Your task to perform on an android device: see creations saved in the google photos Image 0: 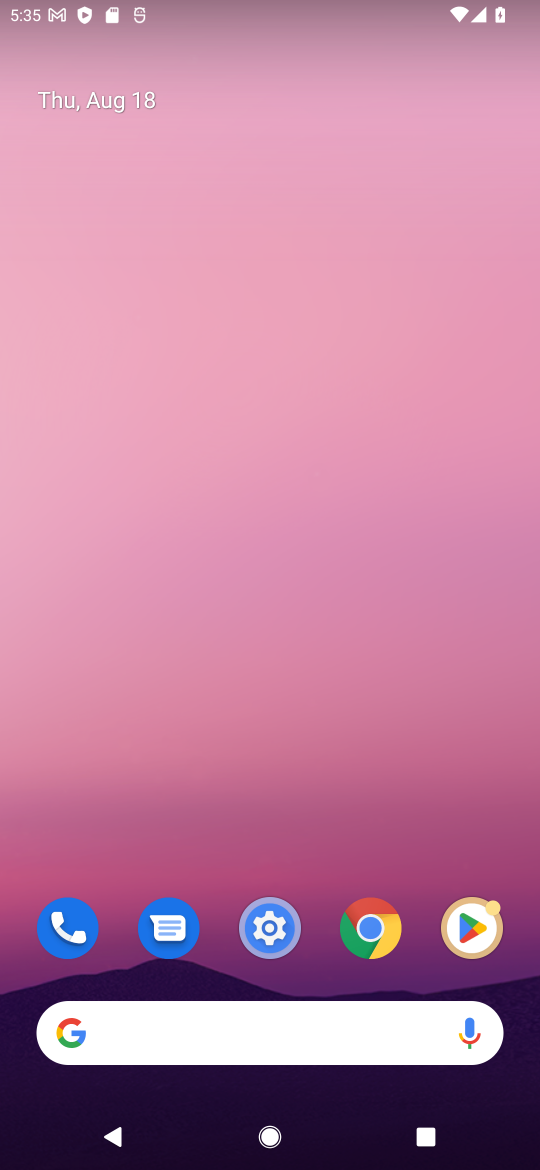
Step 0: drag from (270, 753) to (368, 36)
Your task to perform on an android device: see creations saved in the google photos Image 1: 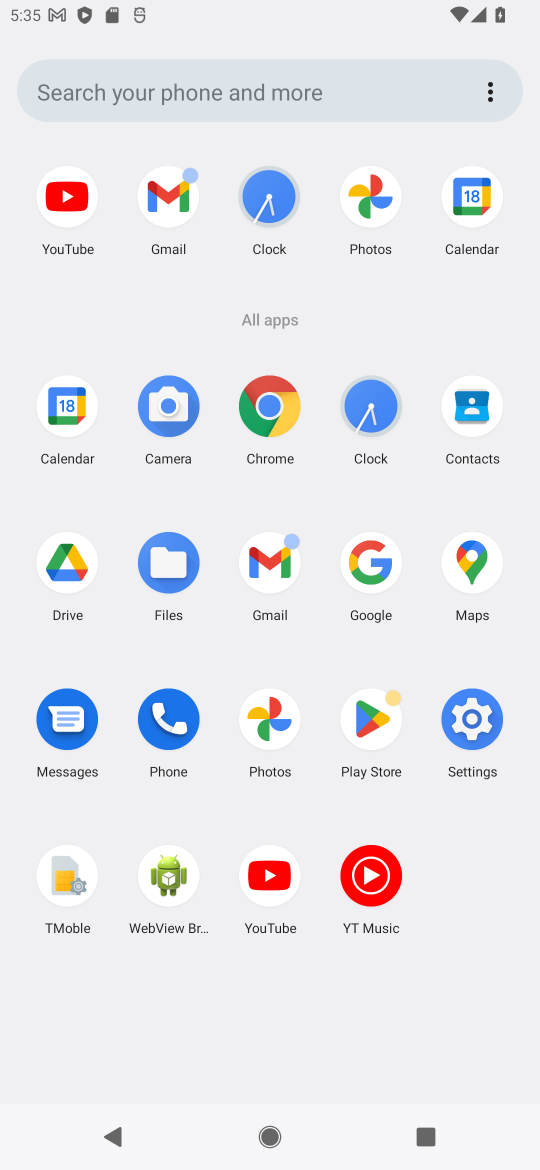
Step 1: click (272, 726)
Your task to perform on an android device: see creations saved in the google photos Image 2: 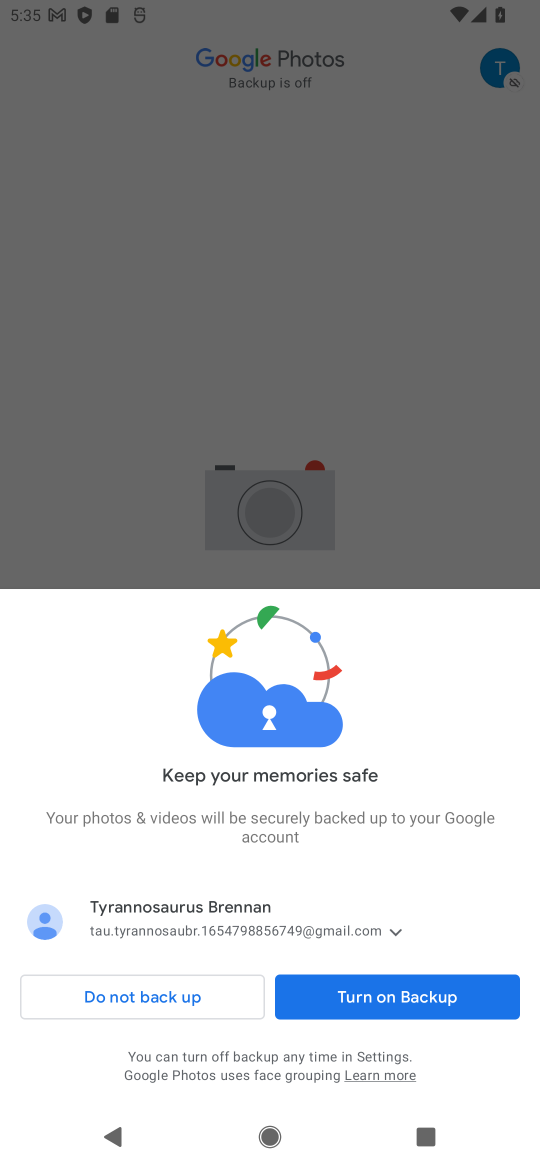
Step 2: click (375, 993)
Your task to perform on an android device: see creations saved in the google photos Image 3: 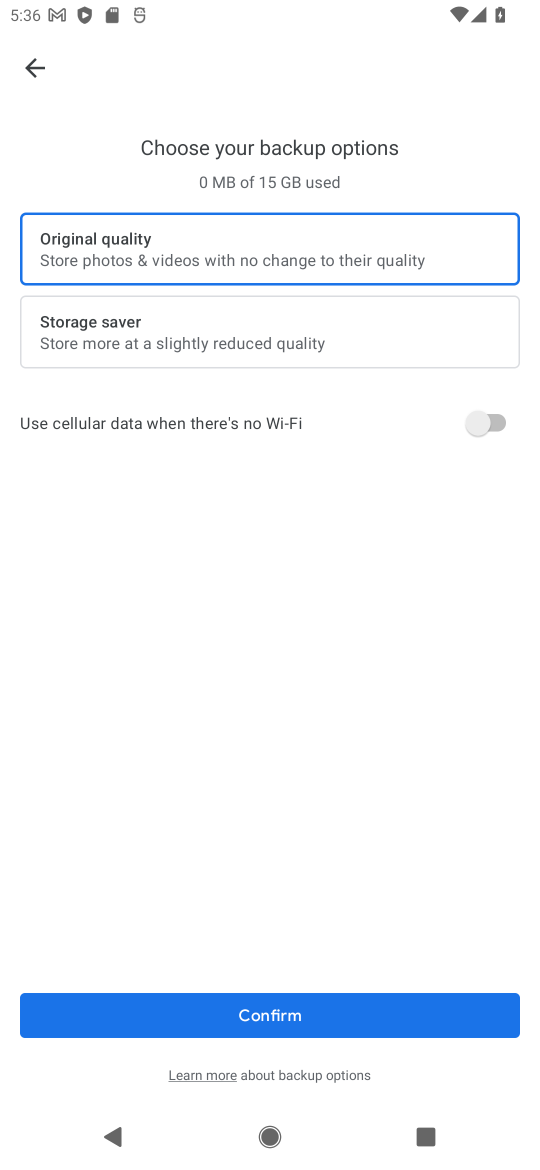
Step 3: click (373, 1000)
Your task to perform on an android device: see creations saved in the google photos Image 4: 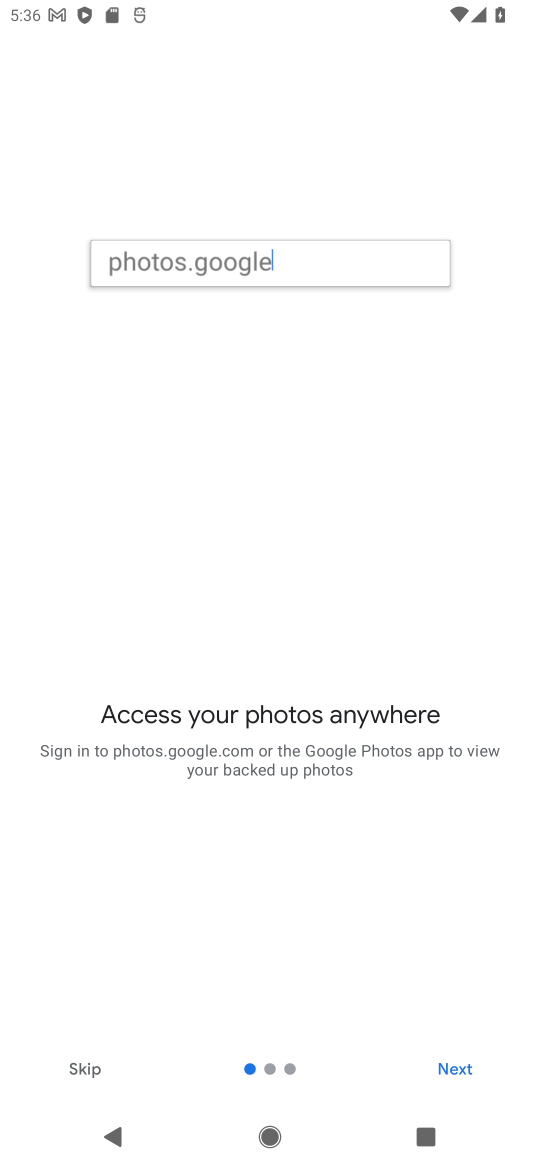
Step 4: click (474, 1069)
Your task to perform on an android device: see creations saved in the google photos Image 5: 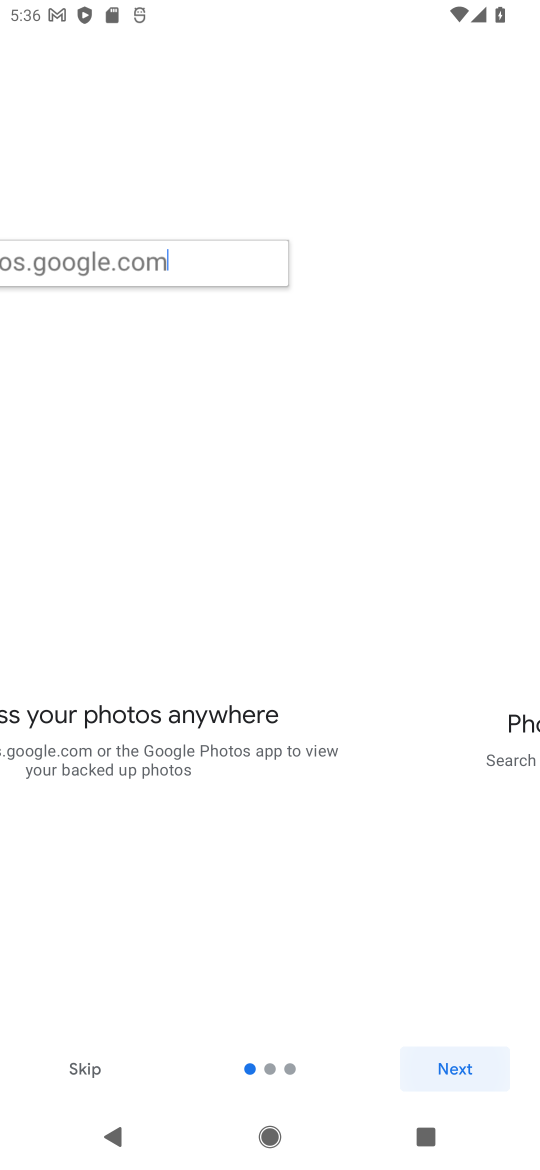
Step 5: click (474, 1069)
Your task to perform on an android device: see creations saved in the google photos Image 6: 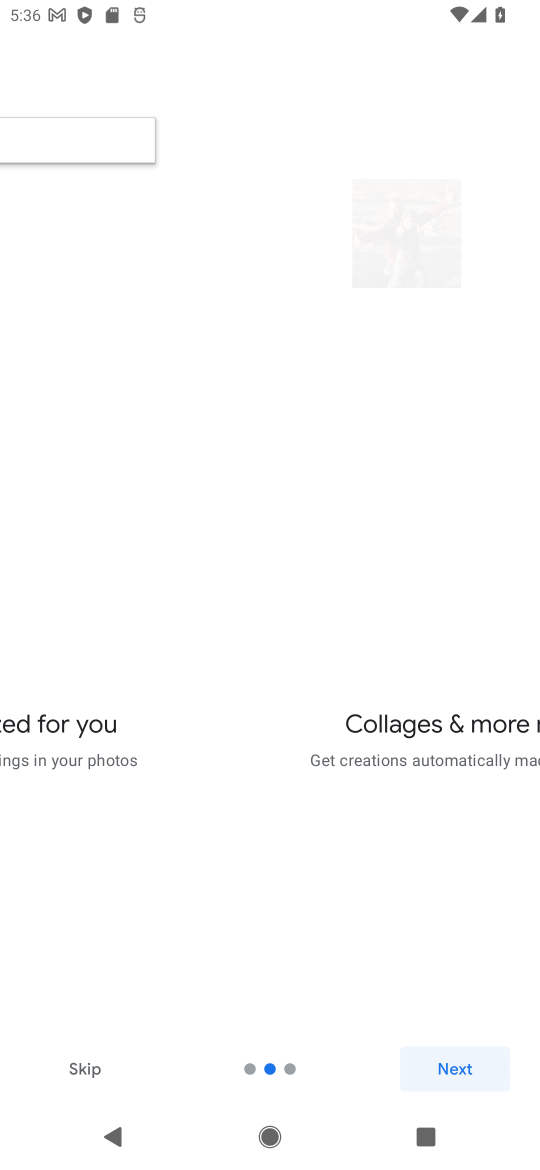
Step 6: click (474, 1069)
Your task to perform on an android device: see creations saved in the google photos Image 7: 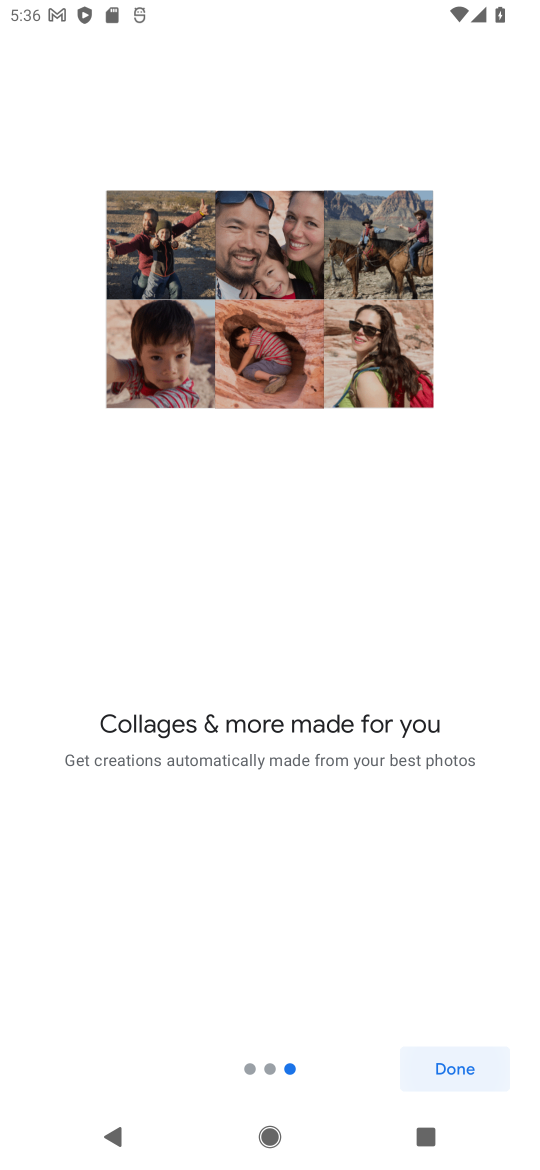
Step 7: click (474, 1067)
Your task to perform on an android device: see creations saved in the google photos Image 8: 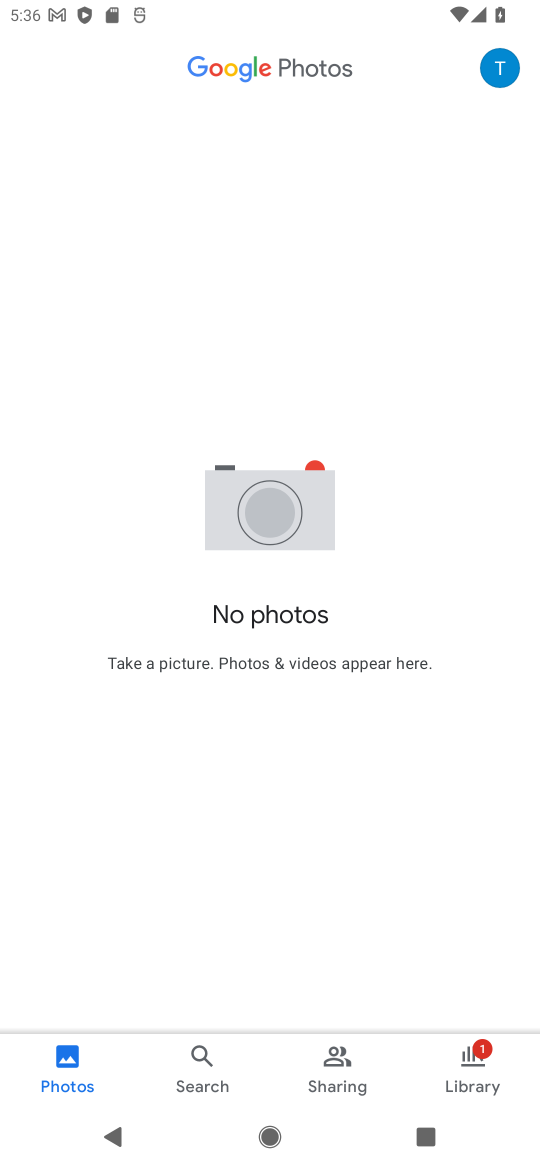
Step 8: click (462, 1052)
Your task to perform on an android device: see creations saved in the google photos Image 9: 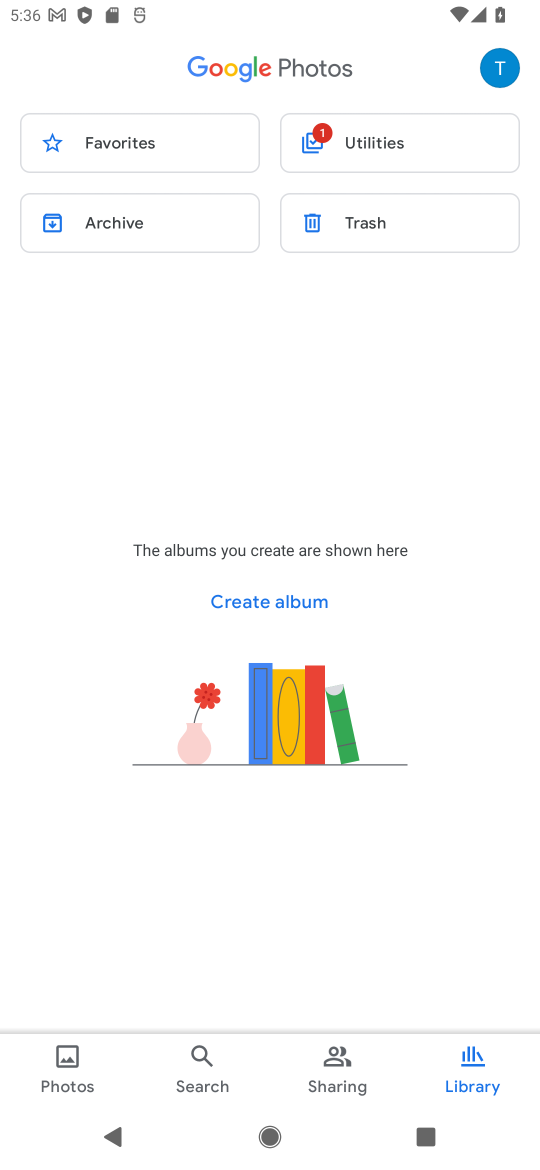
Step 9: task complete